Your task to perform on an android device: turn off location history Image 0: 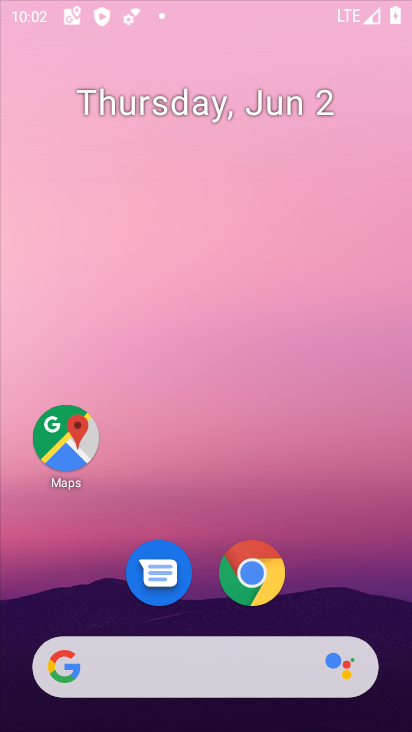
Step 0: drag from (332, 586) to (291, 86)
Your task to perform on an android device: turn off location history Image 1: 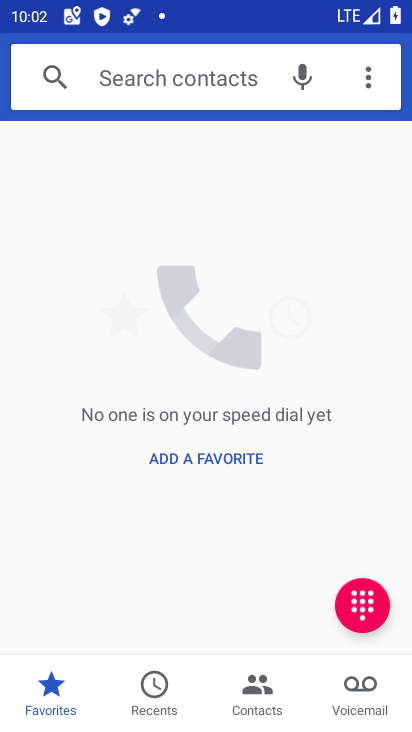
Step 1: press home button
Your task to perform on an android device: turn off location history Image 2: 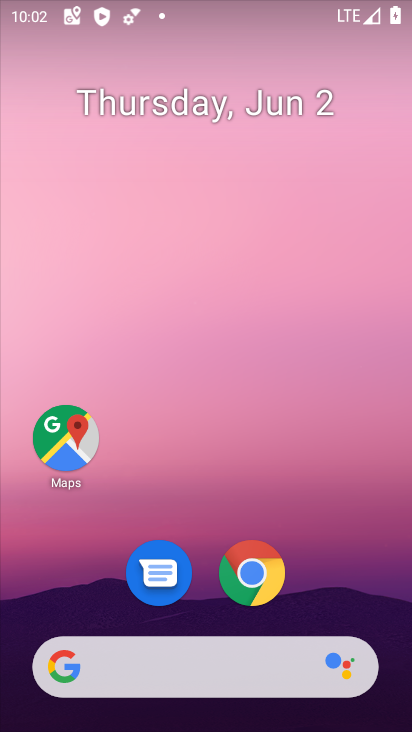
Step 2: drag from (303, 608) to (294, 163)
Your task to perform on an android device: turn off location history Image 3: 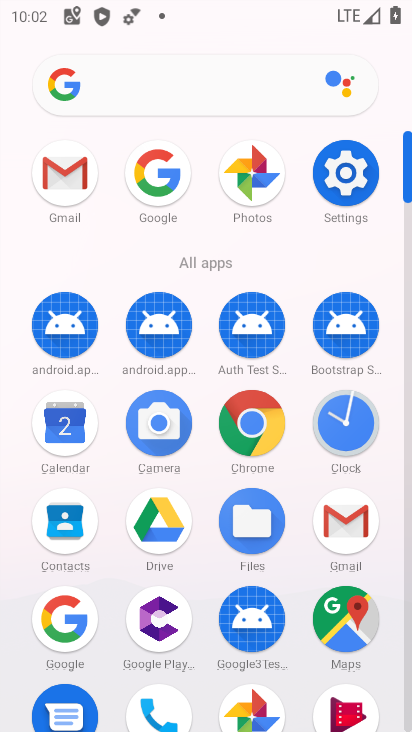
Step 3: click (346, 177)
Your task to perform on an android device: turn off location history Image 4: 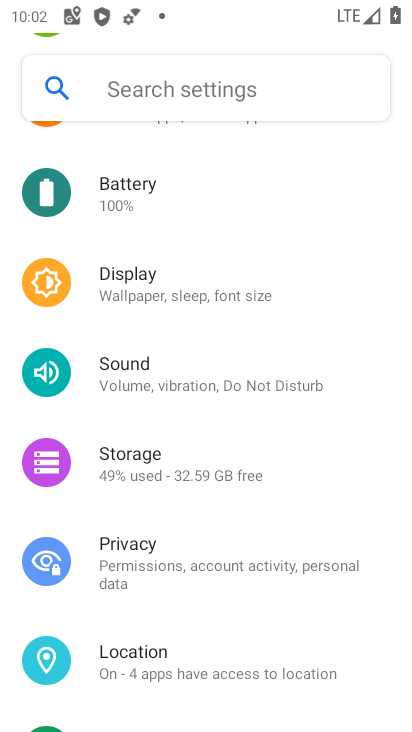
Step 4: click (157, 652)
Your task to perform on an android device: turn off location history Image 5: 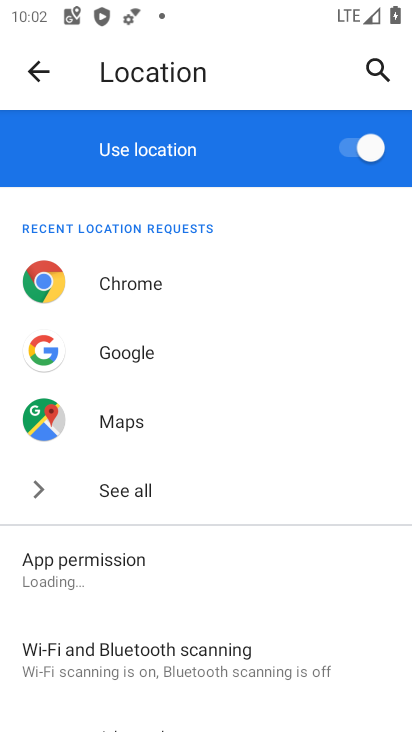
Step 5: click (356, 144)
Your task to perform on an android device: turn off location history Image 6: 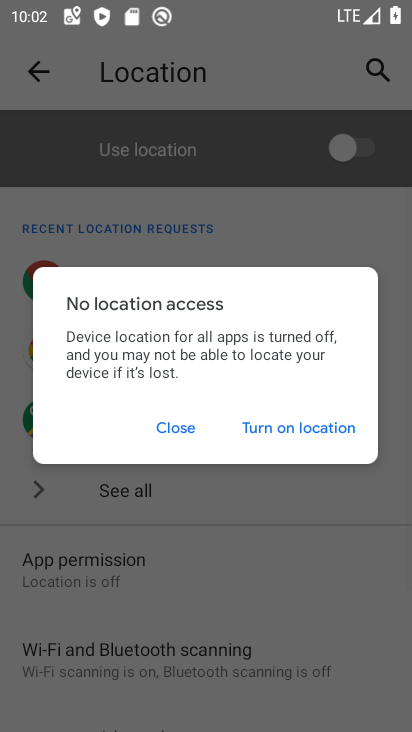
Step 6: task complete